Your task to perform on an android device: open app "DoorDash - Dasher" (install if not already installed) and enter user name: "resistor@inbox.com" and password: "cholera" Image 0: 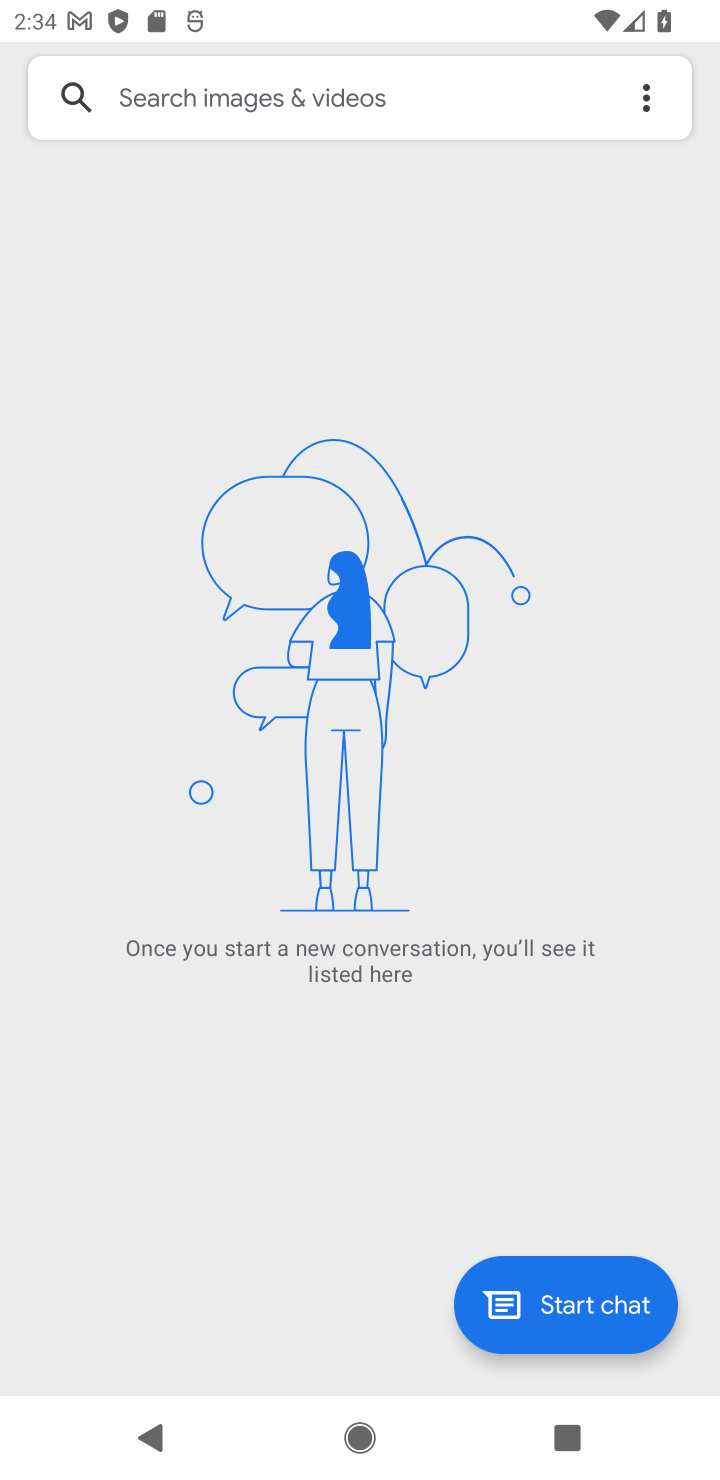
Step 0: press home button
Your task to perform on an android device: open app "DoorDash - Dasher" (install if not already installed) and enter user name: "resistor@inbox.com" and password: "cholera" Image 1: 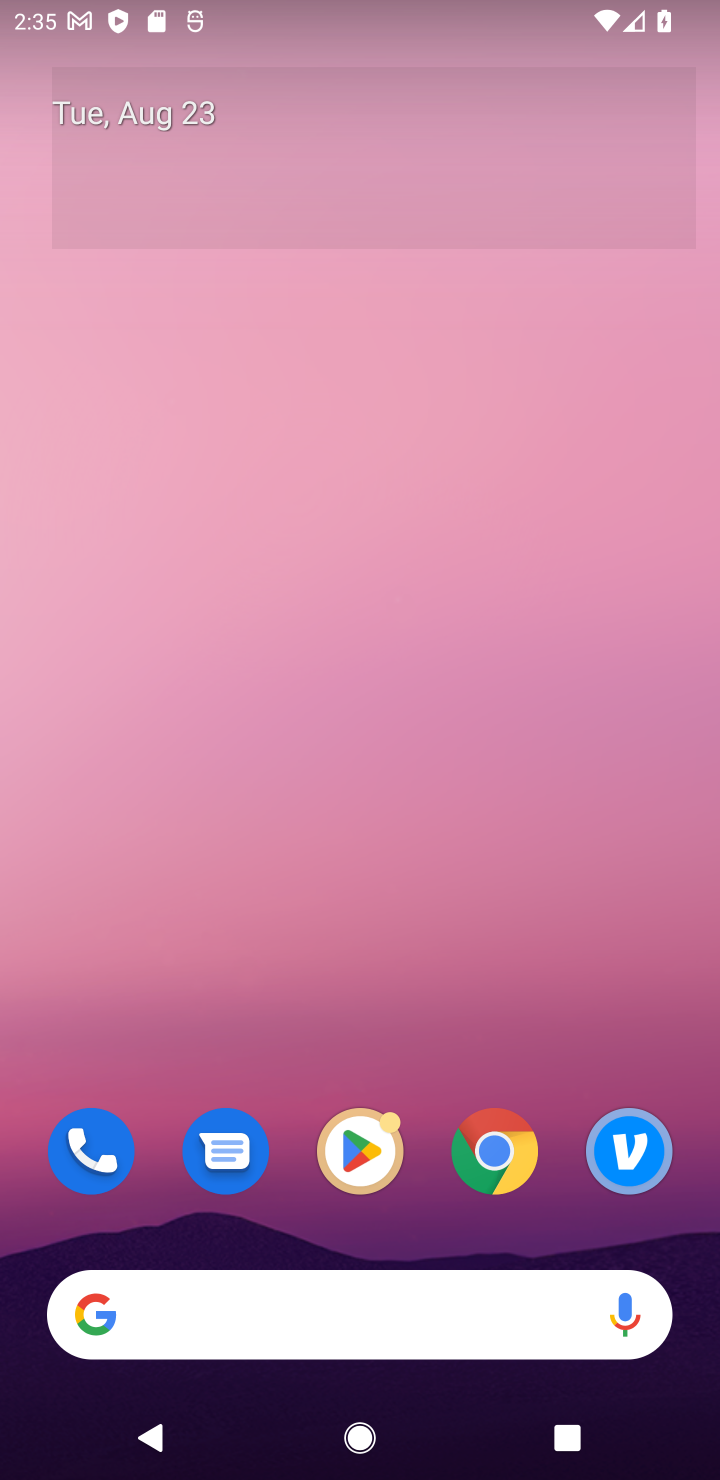
Step 1: click (351, 1150)
Your task to perform on an android device: open app "DoorDash - Dasher" (install if not already installed) and enter user name: "resistor@inbox.com" and password: "cholera" Image 2: 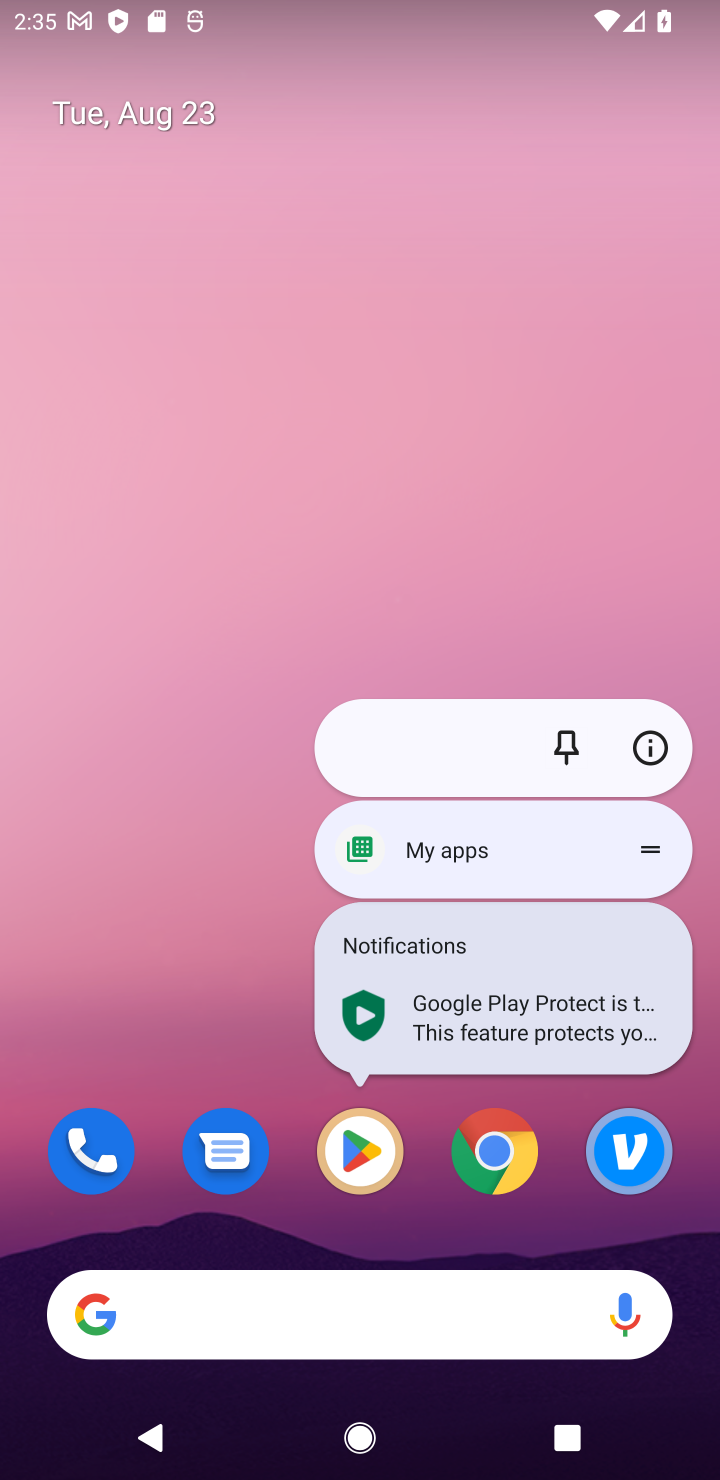
Step 2: click (351, 1159)
Your task to perform on an android device: open app "DoorDash - Dasher" (install if not already installed) and enter user name: "resistor@inbox.com" and password: "cholera" Image 3: 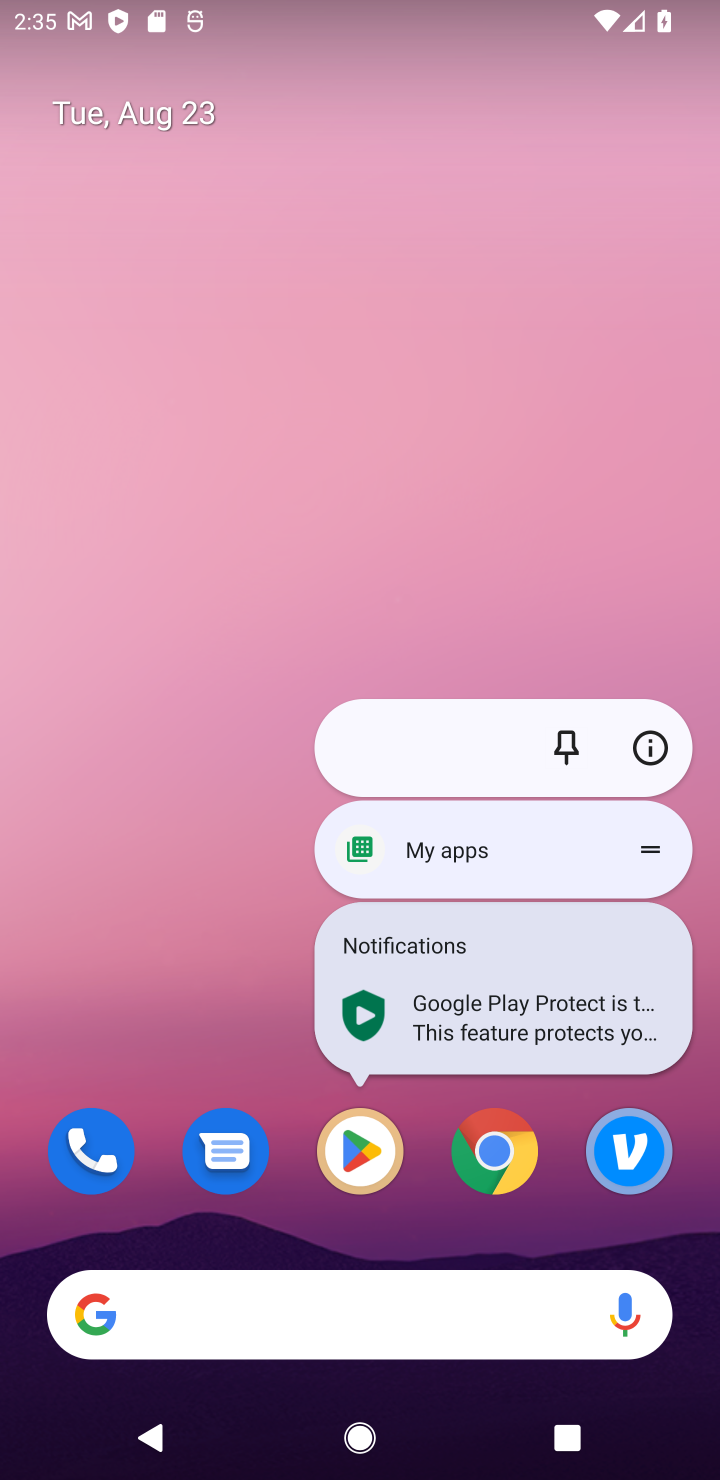
Step 3: click (351, 1163)
Your task to perform on an android device: open app "DoorDash - Dasher" (install if not already installed) and enter user name: "resistor@inbox.com" and password: "cholera" Image 4: 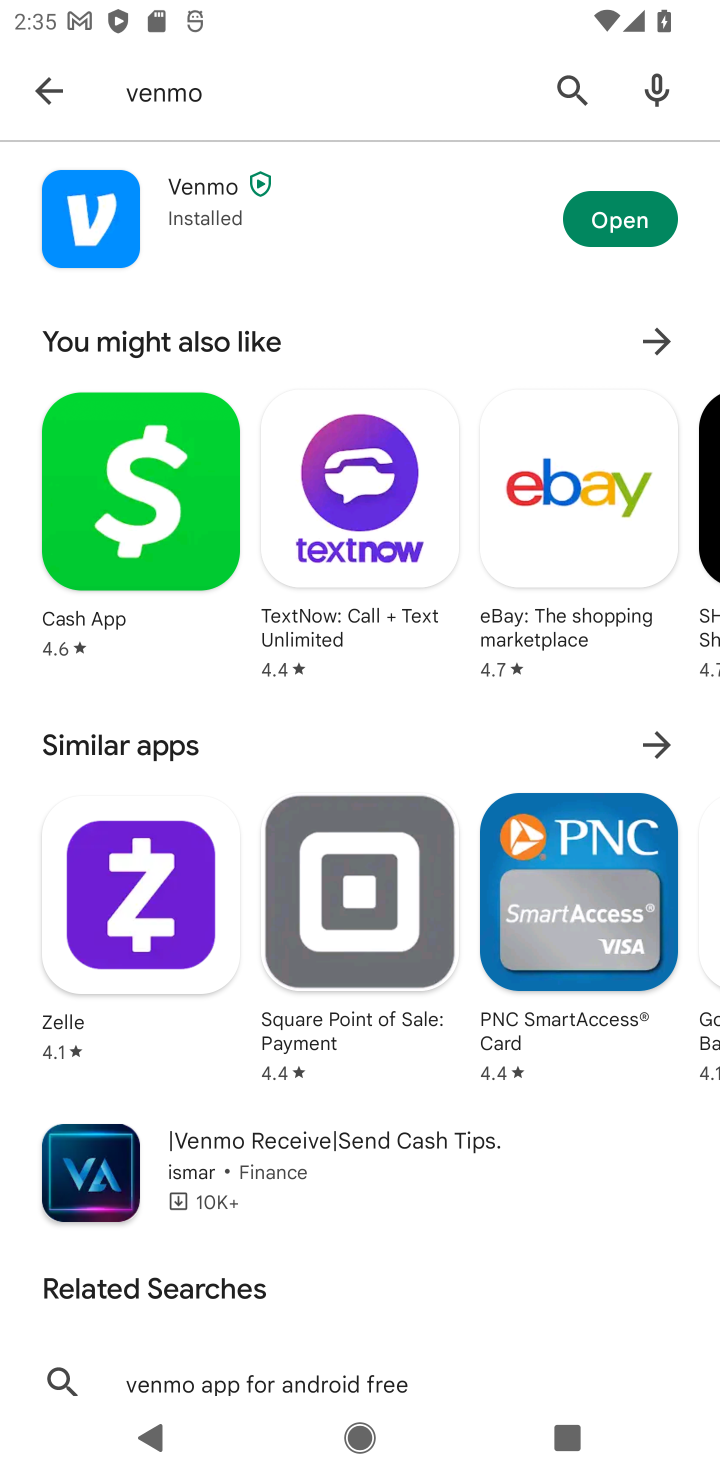
Step 4: click (570, 80)
Your task to perform on an android device: open app "DoorDash - Dasher" (install if not already installed) and enter user name: "resistor@inbox.com" and password: "cholera" Image 5: 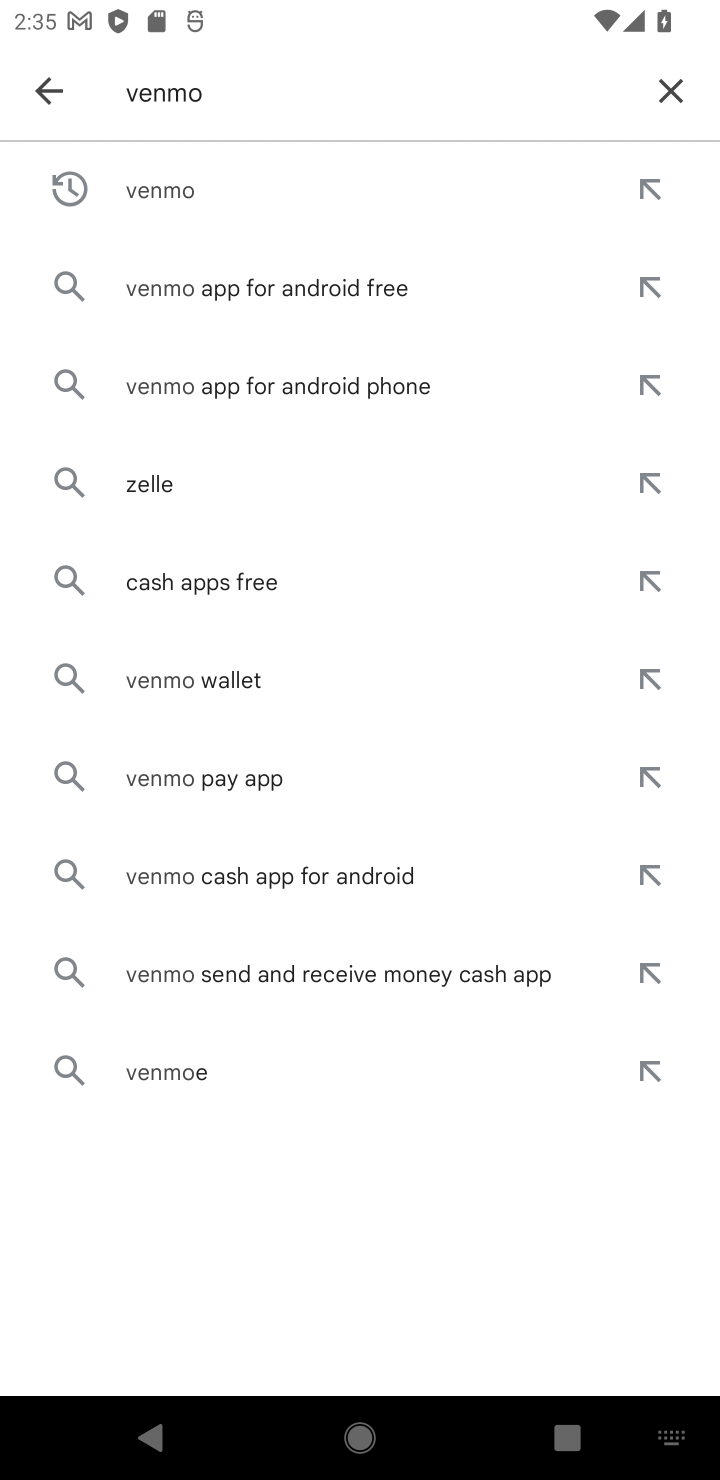
Step 5: click (674, 80)
Your task to perform on an android device: open app "DoorDash - Dasher" (install if not already installed) and enter user name: "resistor@inbox.com" and password: "cholera" Image 6: 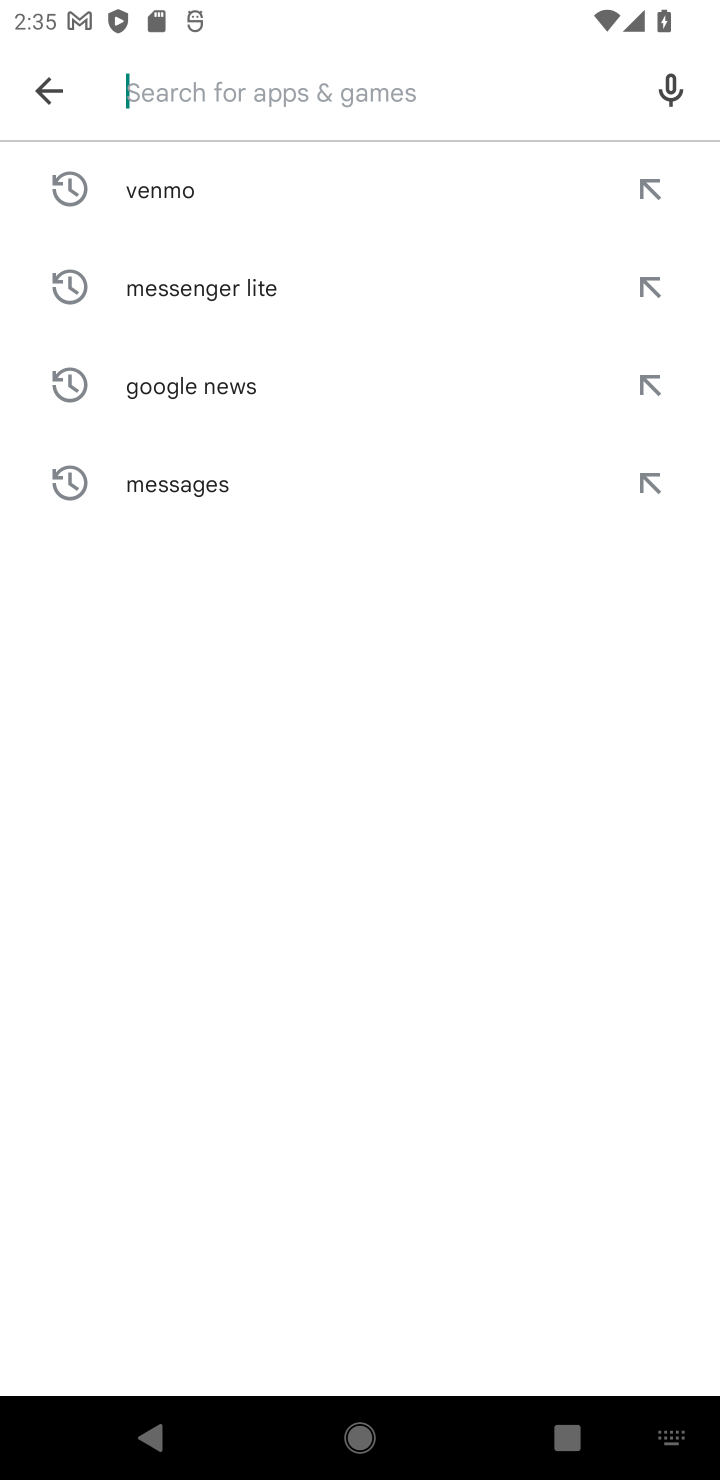
Step 6: type "DoorDash - Dasher"
Your task to perform on an android device: open app "DoorDash - Dasher" (install if not already installed) and enter user name: "resistor@inbox.com" and password: "cholera" Image 7: 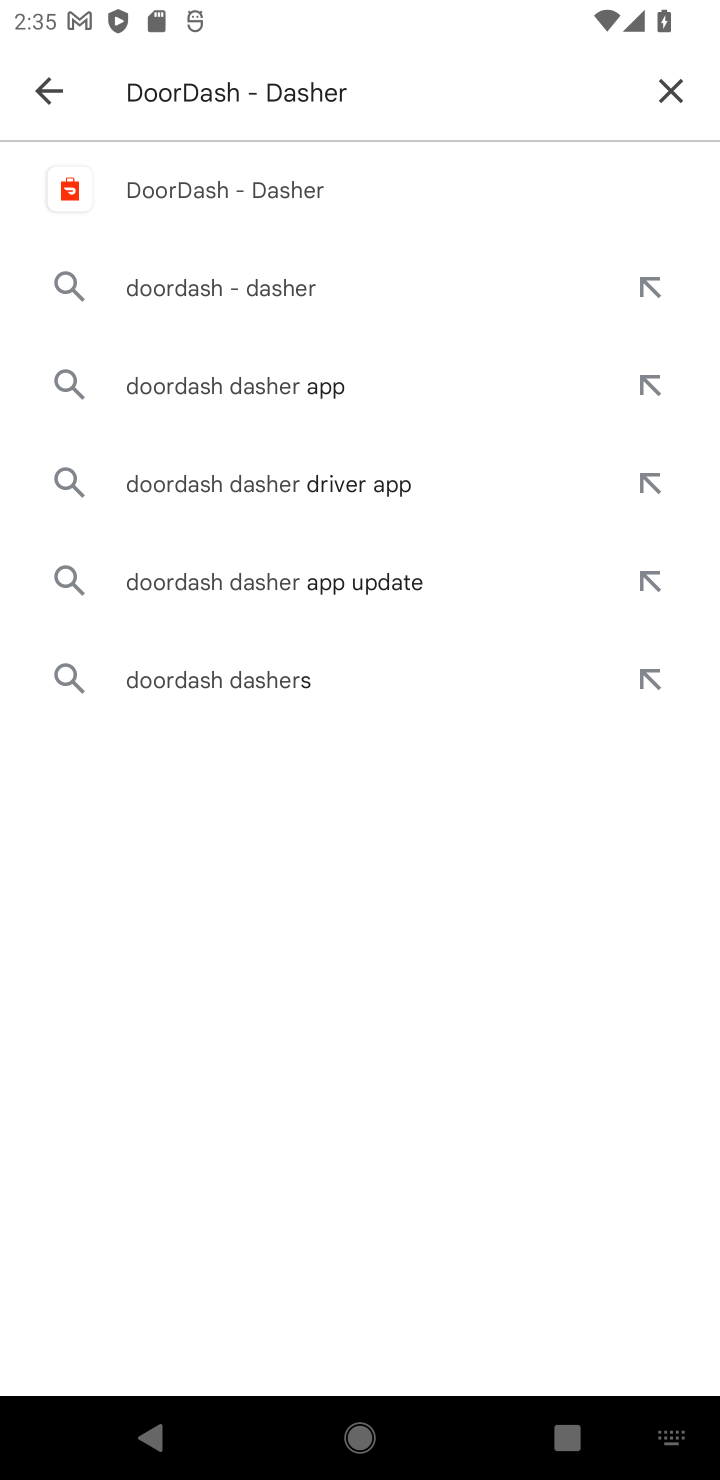
Step 7: click (256, 204)
Your task to perform on an android device: open app "DoorDash - Dasher" (install if not already installed) and enter user name: "resistor@inbox.com" and password: "cholera" Image 8: 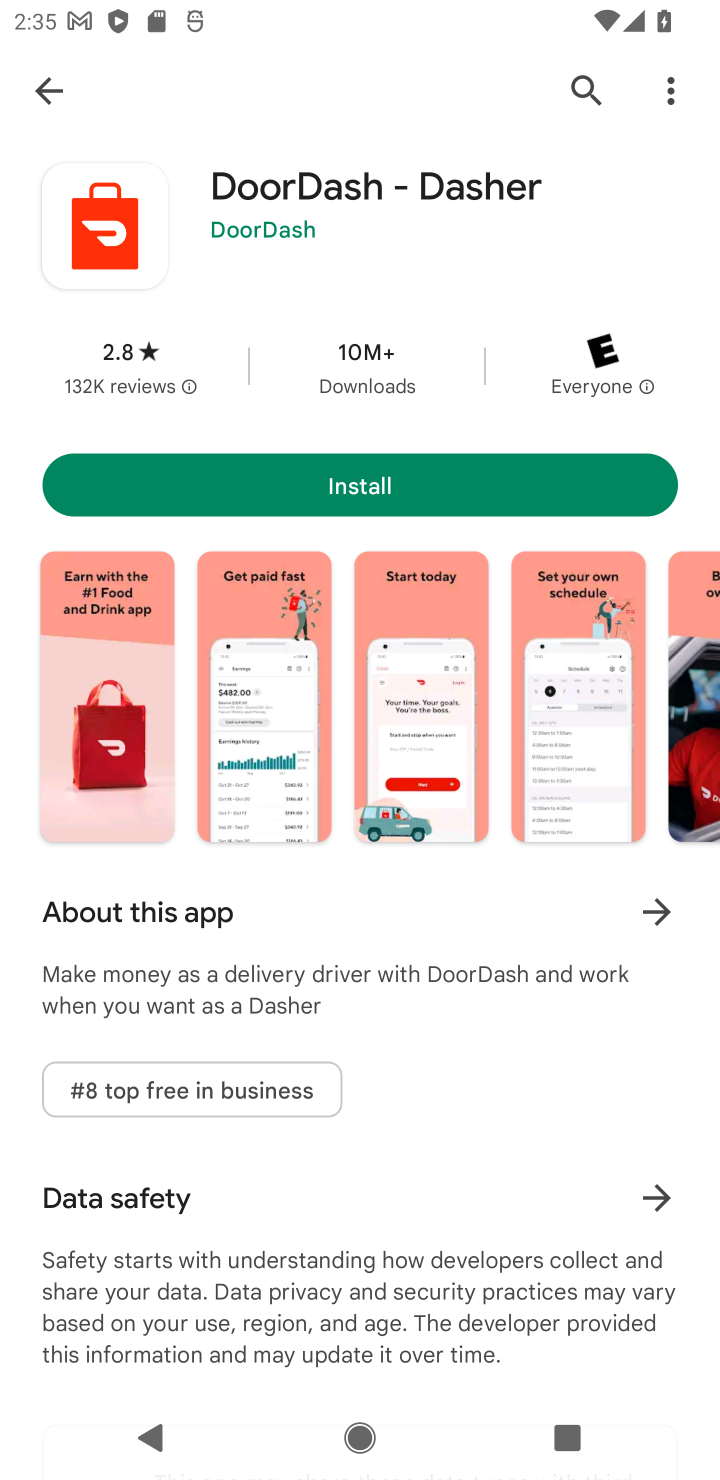
Step 8: click (377, 495)
Your task to perform on an android device: open app "DoorDash - Dasher" (install if not already installed) and enter user name: "resistor@inbox.com" and password: "cholera" Image 9: 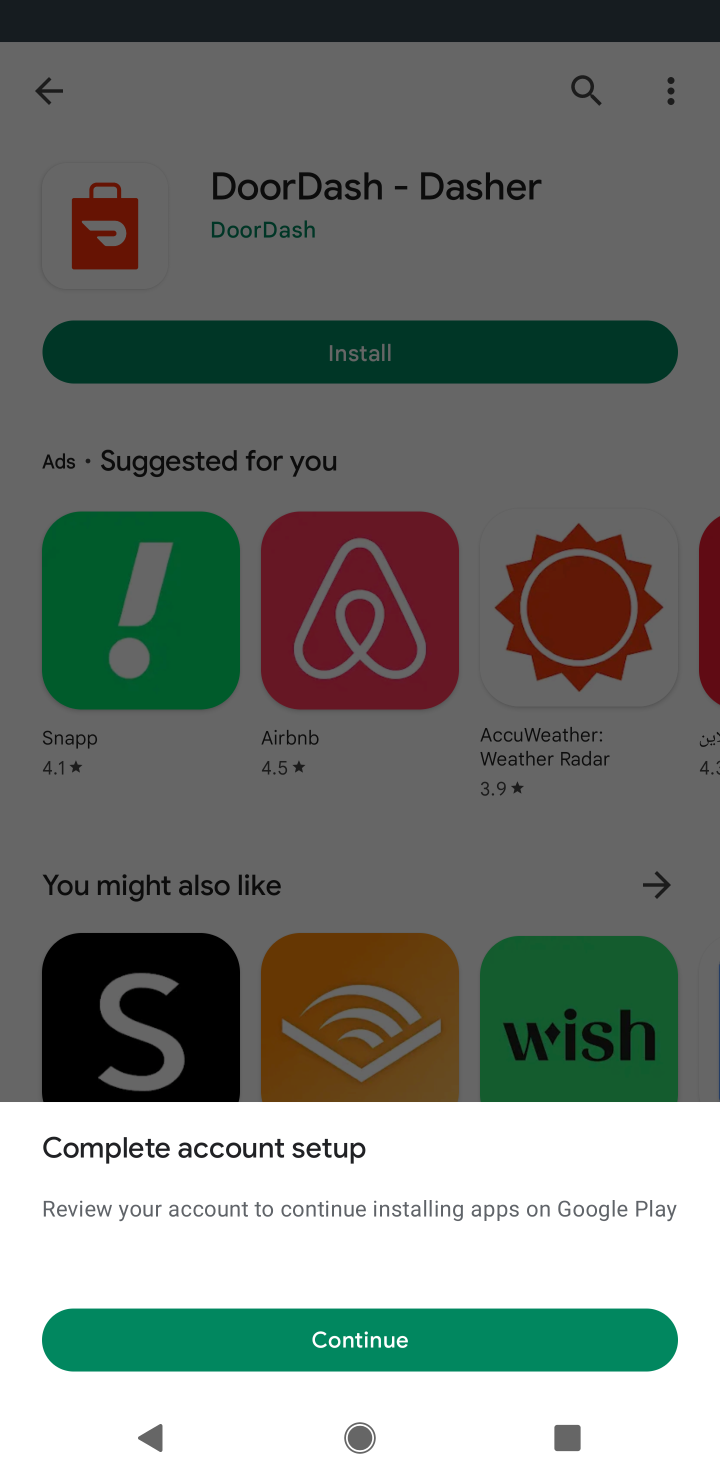
Step 9: click (437, 1341)
Your task to perform on an android device: open app "DoorDash - Dasher" (install if not already installed) and enter user name: "resistor@inbox.com" and password: "cholera" Image 10: 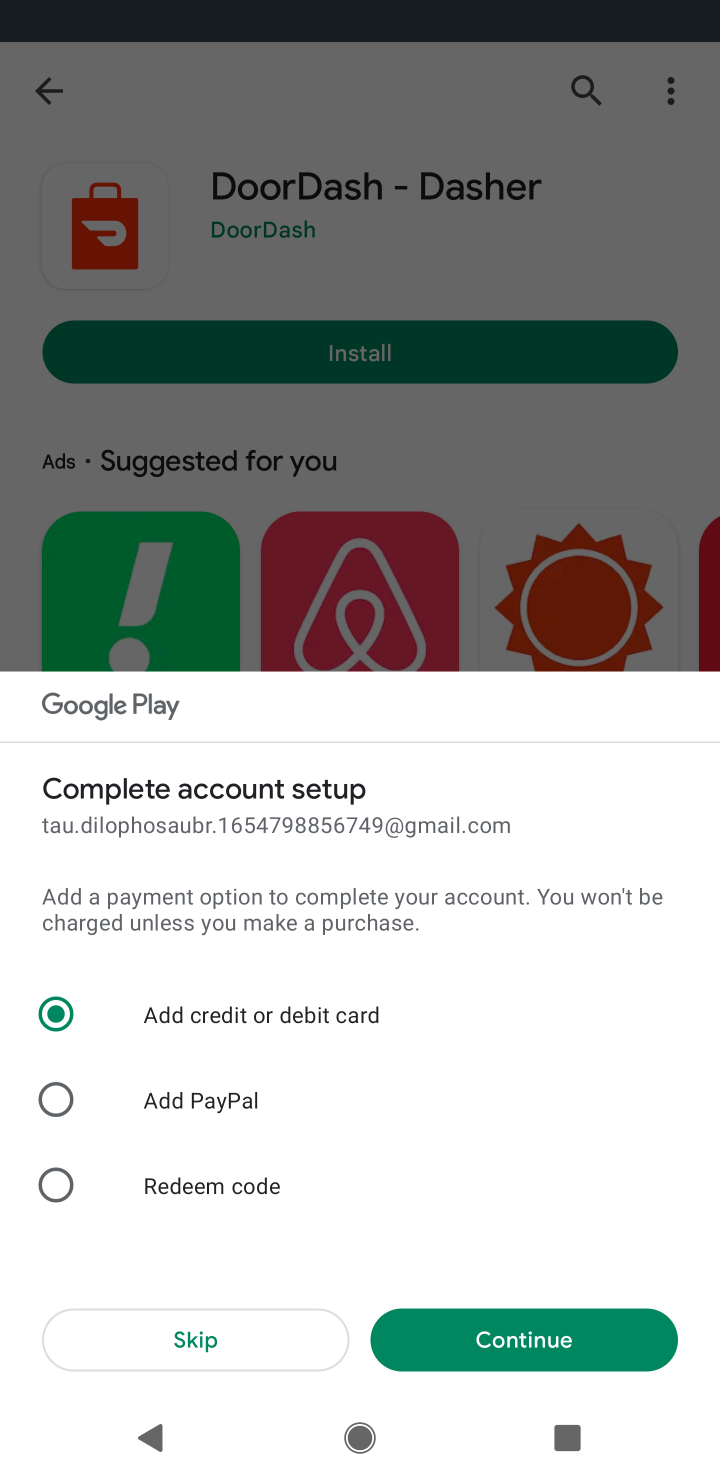
Step 10: click (207, 1336)
Your task to perform on an android device: open app "DoorDash - Dasher" (install if not already installed) and enter user name: "resistor@inbox.com" and password: "cholera" Image 11: 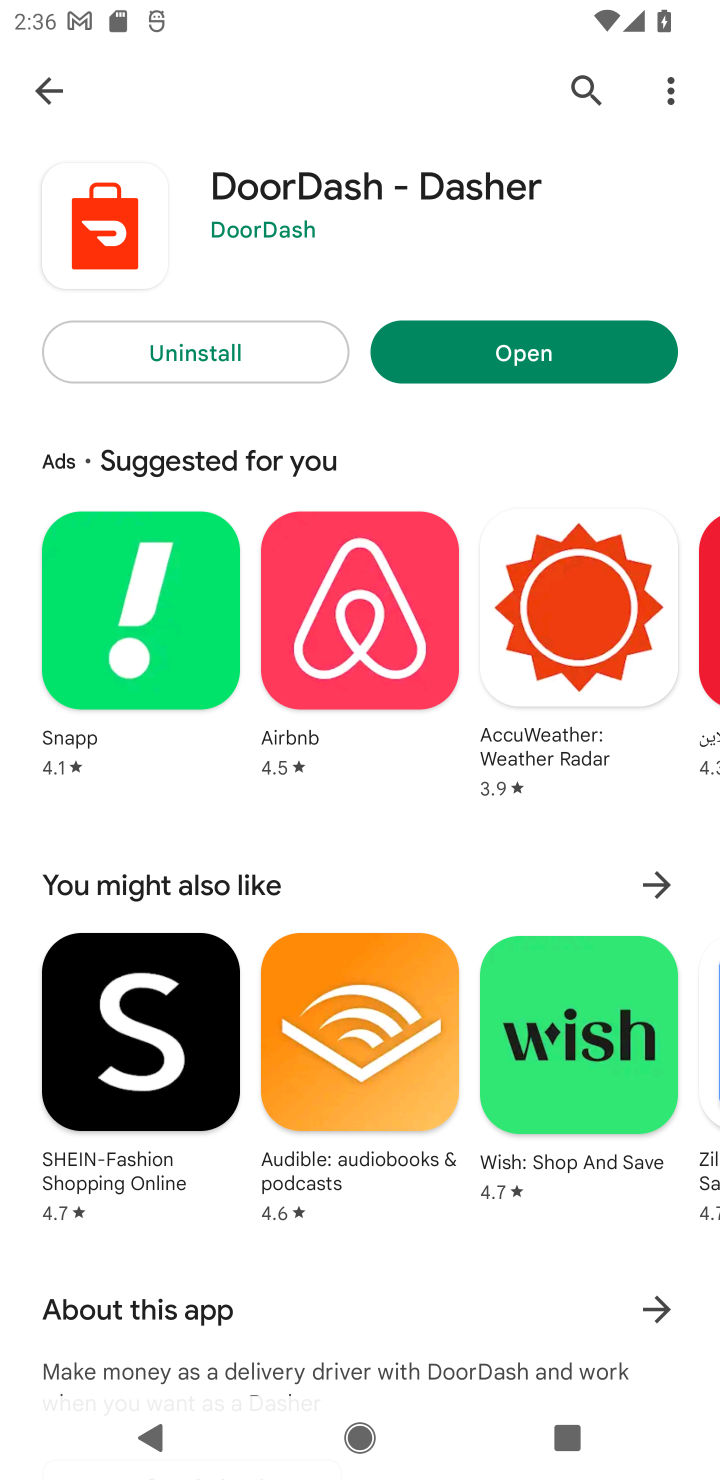
Step 11: click (567, 345)
Your task to perform on an android device: open app "DoorDash - Dasher" (install if not already installed) and enter user name: "resistor@inbox.com" and password: "cholera" Image 12: 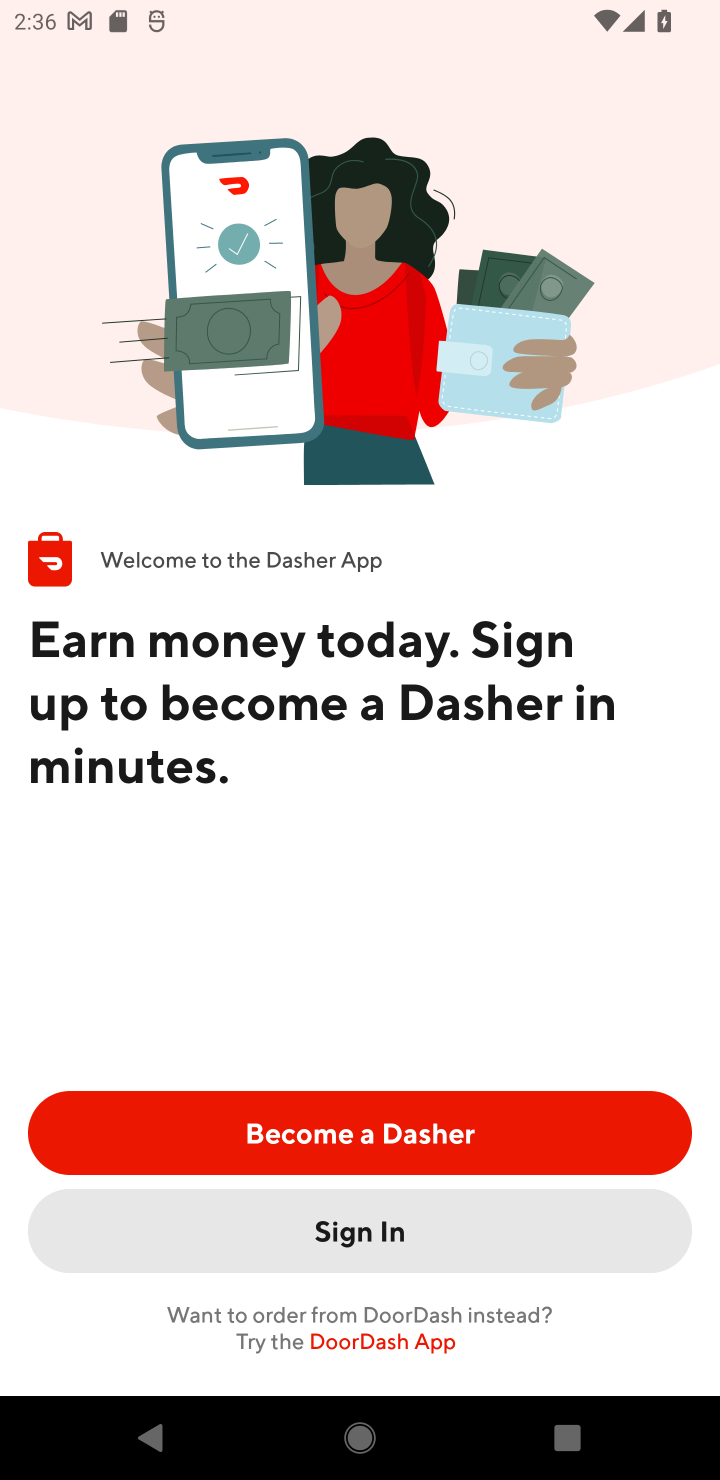
Step 12: click (327, 1219)
Your task to perform on an android device: open app "DoorDash - Dasher" (install if not already installed) and enter user name: "resistor@inbox.com" and password: "cholera" Image 13: 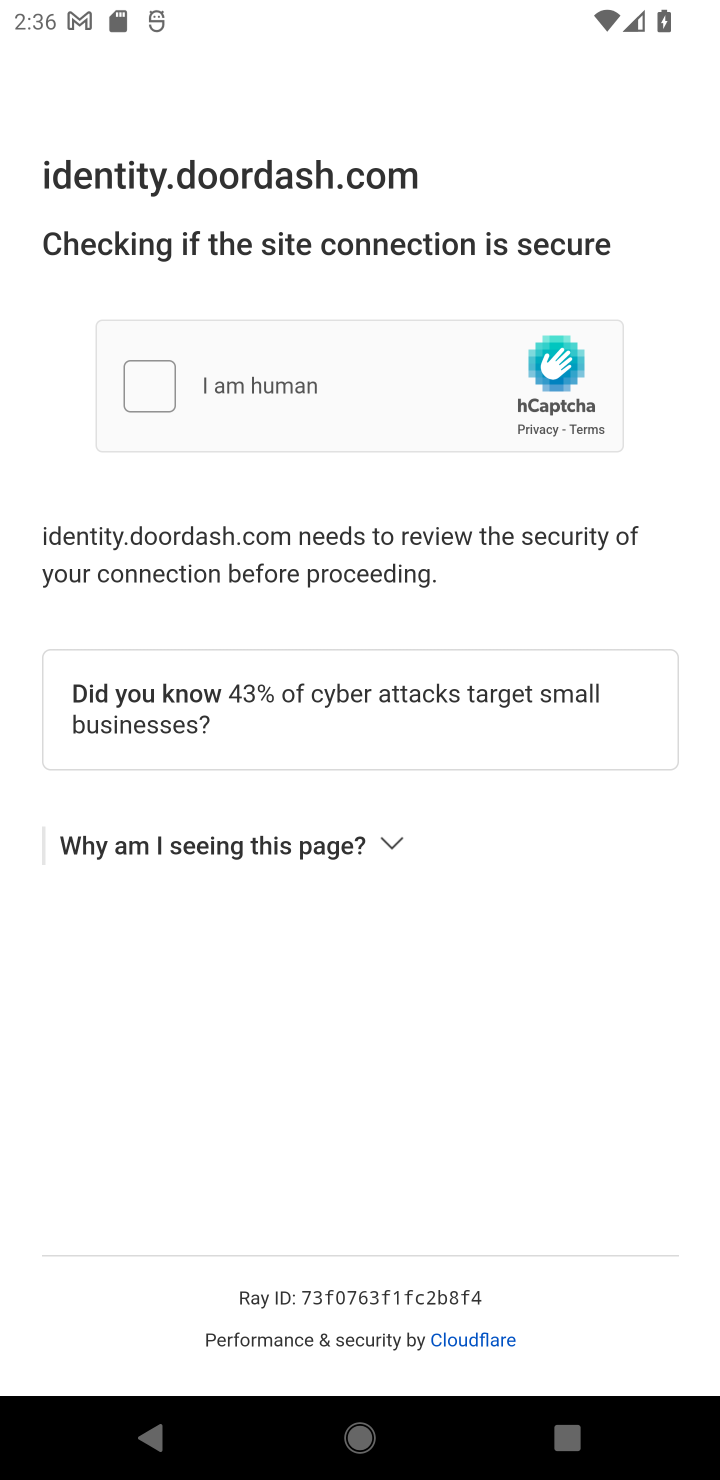
Step 13: task complete